Your task to perform on an android device: Go to Amazon Image 0: 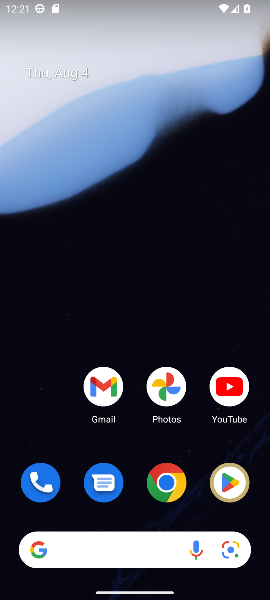
Step 0: click (178, 492)
Your task to perform on an android device: Go to Amazon Image 1: 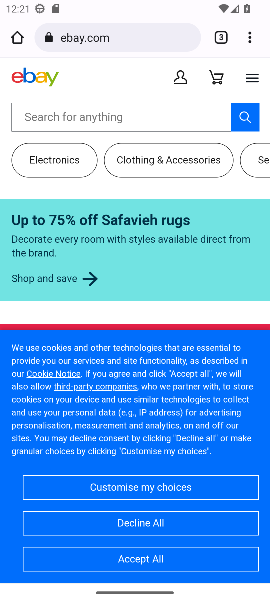
Step 1: click (214, 43)
Your task to perform on an android device: Go to Amazon Image 2: 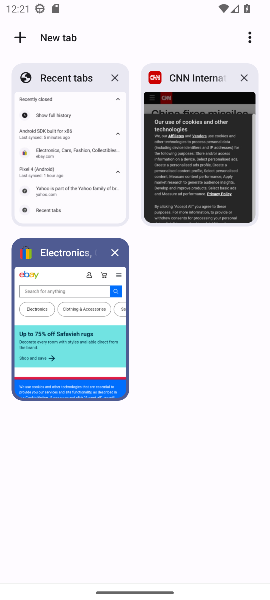
Step 2: click (30, 35)
Your task to perform on an android device: Go to Amazon Image 3: 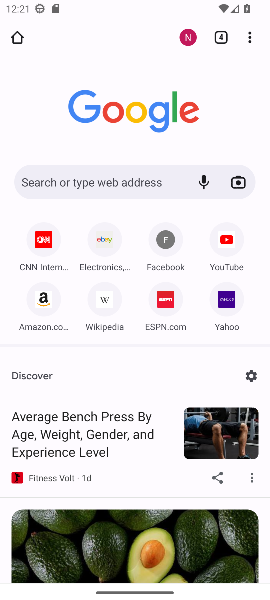
Step 3: click (55, 308)
Your task to perform on an android device: Go to Amazon Image 4: 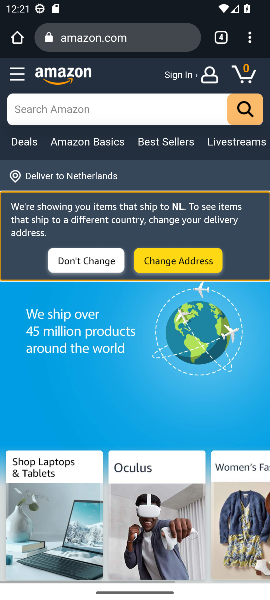
Step 4: task complete